Your task to perform on an android device: toggle show notifications on the lock screen Image 0: 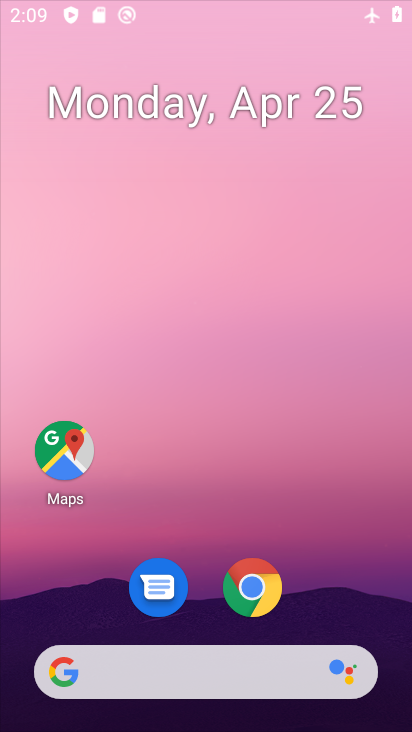
Step 0: click (361, 79)
Your task to perform on an android device: toggle show notifications on the lock screen Image 1: 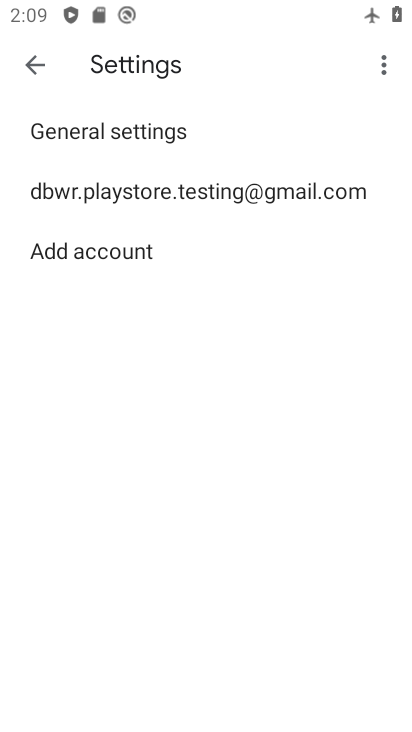
Step 1: click (41, 59)
Your task to perform on an android device: toggle show notifications on the lock screen Image 2: 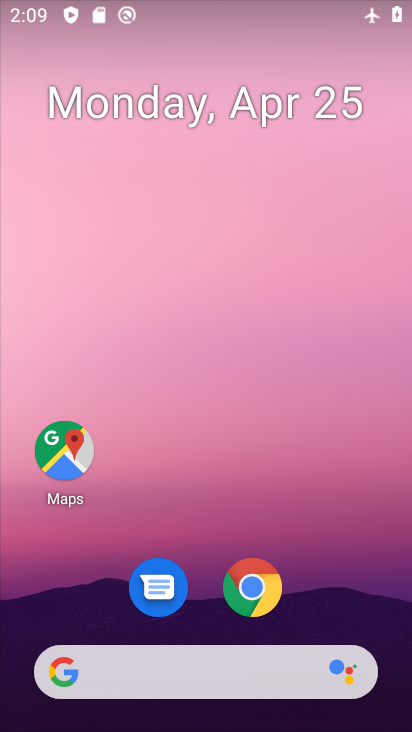
Step 2: drag from (296, 590) to (244, 190)
Your task to perform on an android device: toggle show notifications on the lock screen Image 3: 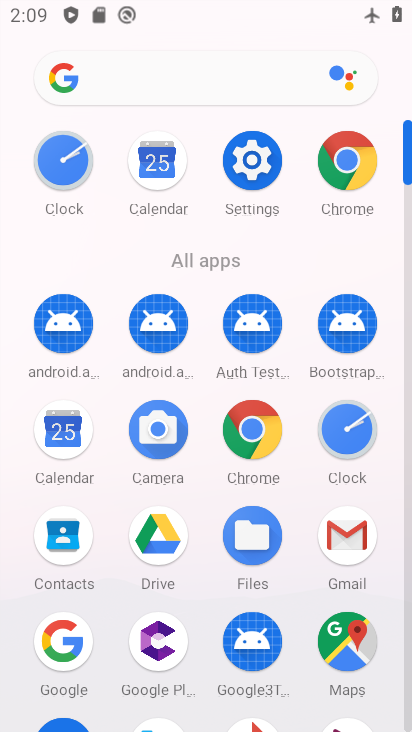
Step 3: click (261, 149)
Your task to perform on an android device: toggle show notifications on the lock screen Image 4: 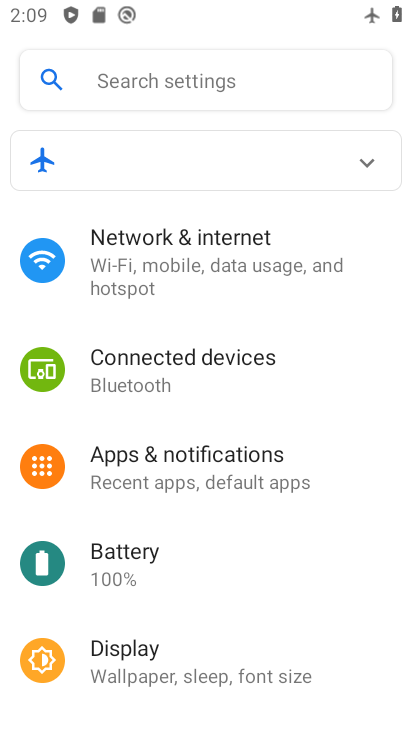
Step 4: drag from (257, 606) to (263, 181)
Your task to perform on an android device: toggle show notifications on the lock screen Image 5: 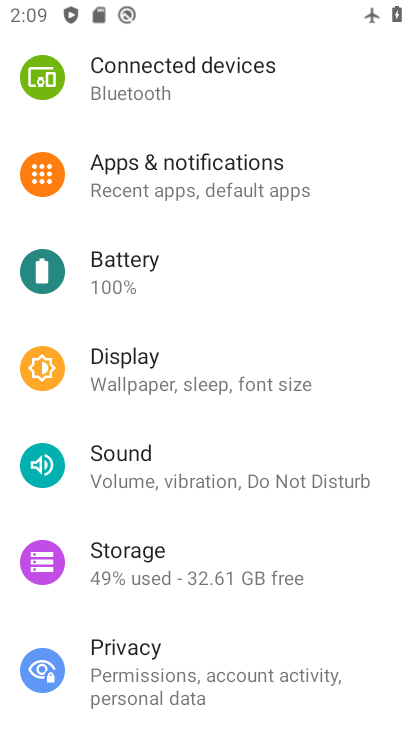
Step 5: drag from (256, 294) to (262, 714)
Your task to perform on an android device: toggle show notifications on the lock screen Image 6: 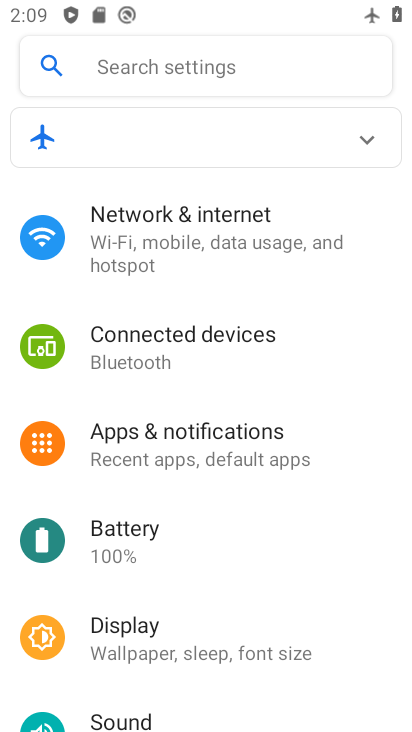
Step 6: click (177, 442)
Your task to perform on an android device: toggle show notifications on the lock screen Image 7: 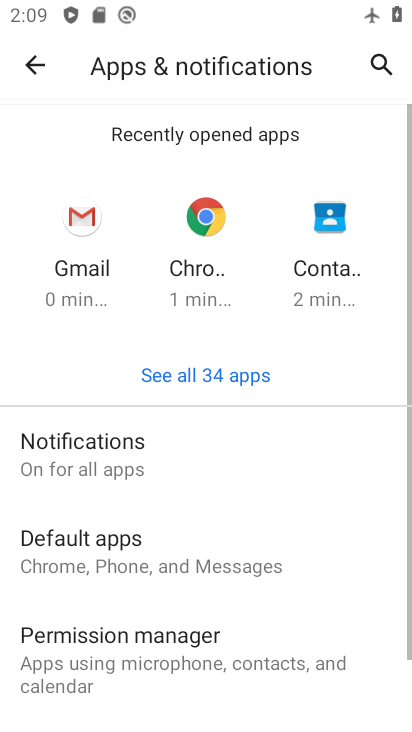
Step 7: click (123, 448)
Your task to perform on an android device: toggle show notifications on the lock screen Image 8: 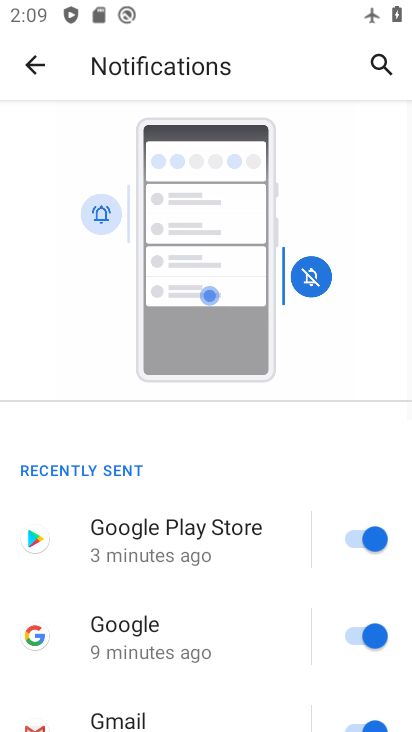
Step 8: drag from (267, 474) to (314, 43)
Your task to perform on an android device: toggle show notifications on the lock screen Image 9: 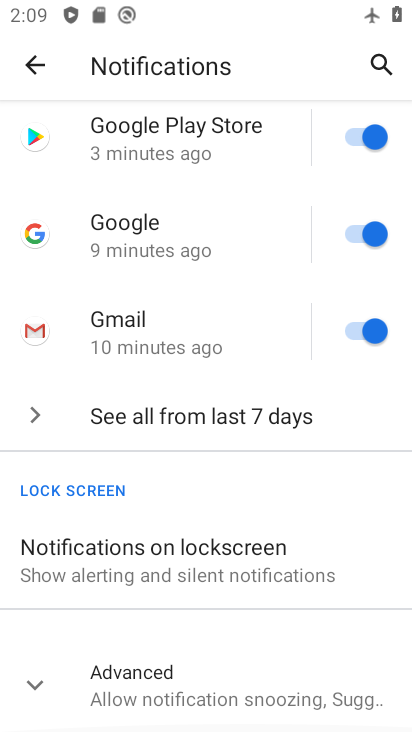
Step 9: drag from (221, 608) to (272, 281)
Your task to perform on an android device: toggle show notifications on the lock screen Image 10: 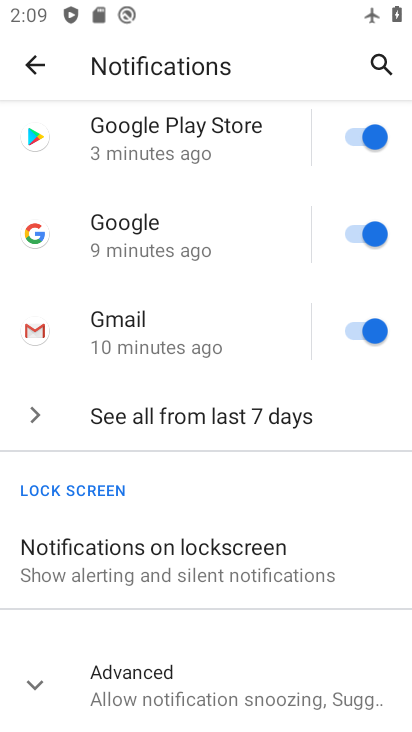
Step 10: click (197, 554)
Your task to perform on an android device: toggle show notifications on the lock screen Image 11: 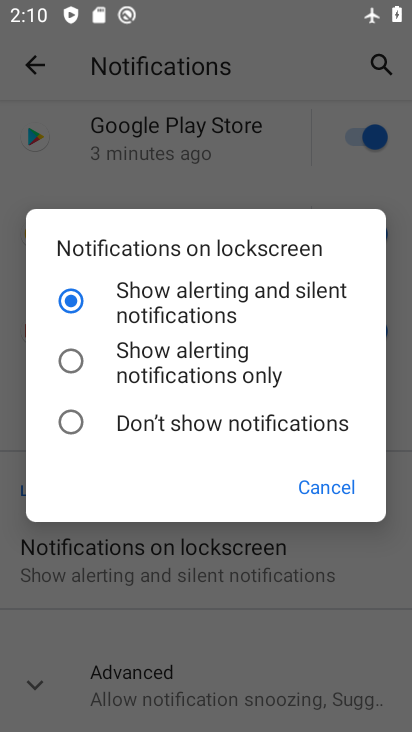
Step 11: click (134, 359)
Your task to perform on an android device: toggle show notifications on the lock screen Image 12: 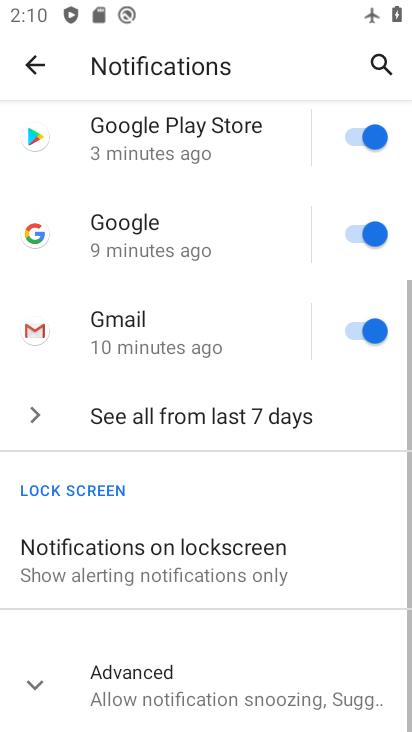
Step 12: task complete